Your task to perform on an android device: open app "Gmail" (install if not already installed) and go to login screen Image 0: 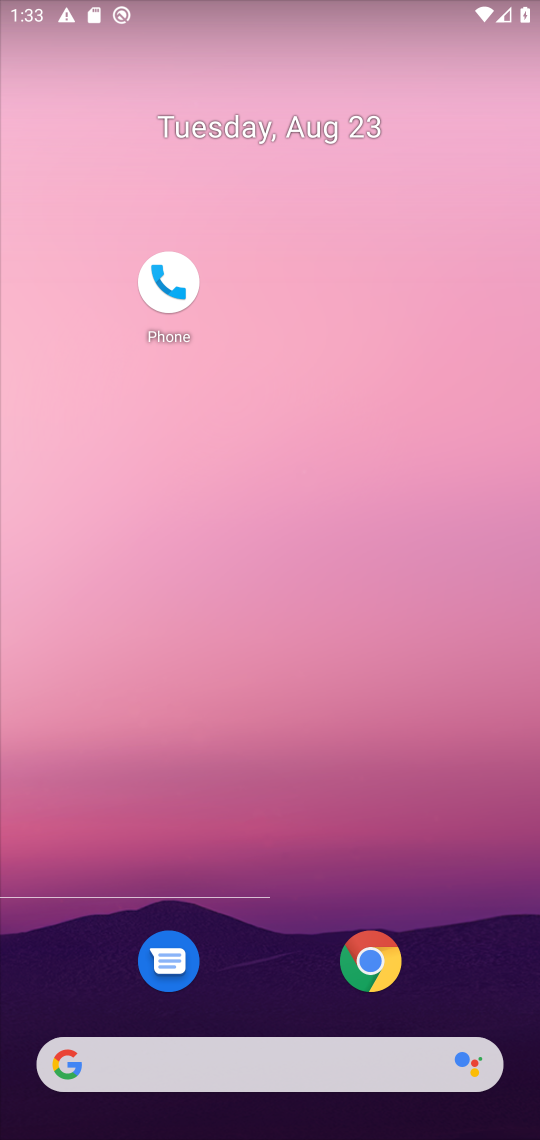
Step 0: drag from (249, 1011) to (380, 411)
Your task to perform on an android device: open app "Gmail" (install if not already installed) and go to login screen Image 1: 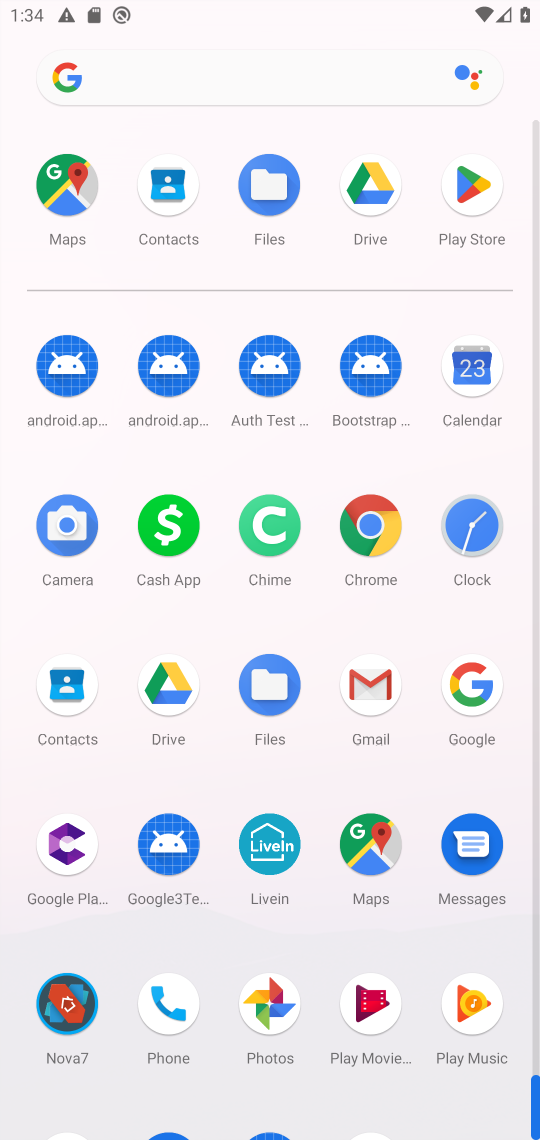
Step 1: click (382, 671)
Your task to perform on an android device: open app "Gmail" (install if not already installed) and go to login screen Image 2: 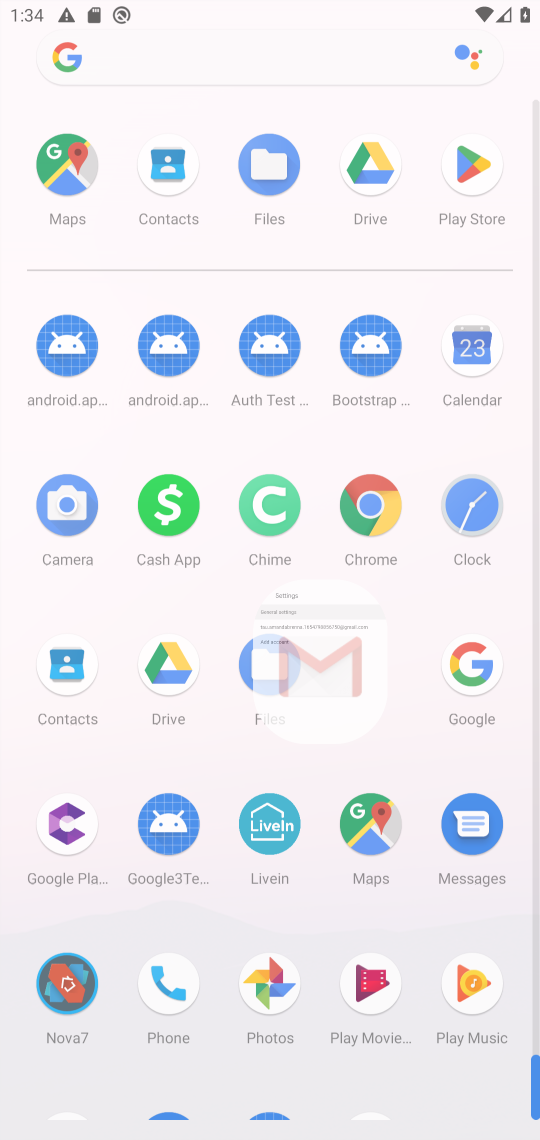
Step 2: task complete